Your task to perform on an android device: turn vacation reply on in the gmail app Image 0: 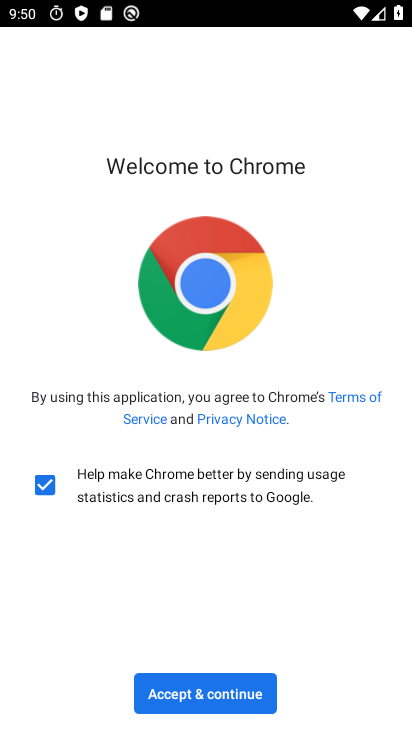
Step 0: press home button
Your task to perform on an android device: turn vacation reply on in the gmail app Image 1: 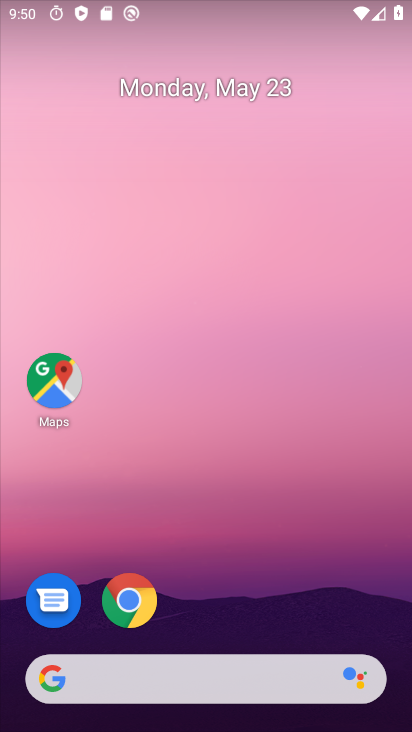
Step 1: drag from (252, 621) to (195, 152)
Your task to perform on an android device: turn vacation reply on in the gmail app Image 2: 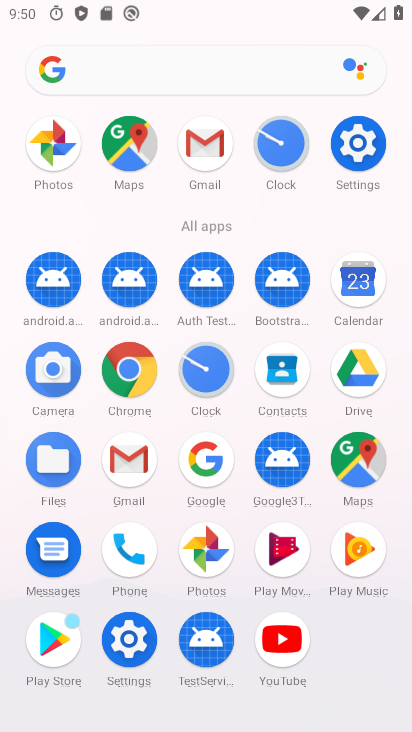
Step 2: click (211, 152)
Your task to perform on an android device: turn vacation reply on in the gmail app Image 3: 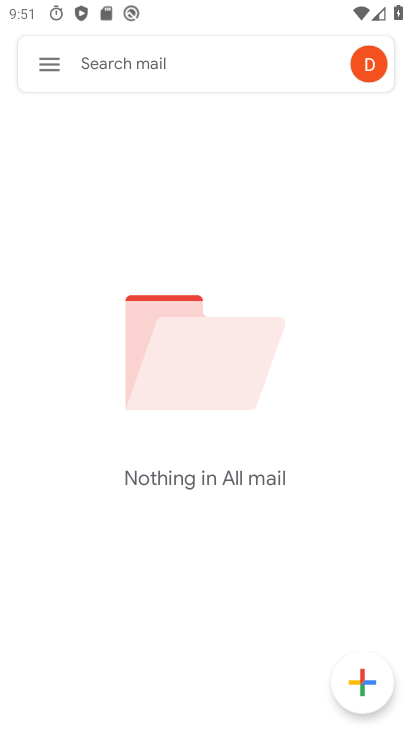
Step 3: click (58, 62)
Your task to perform on an android device: turn vacation reply on in the gmail app Image 4: 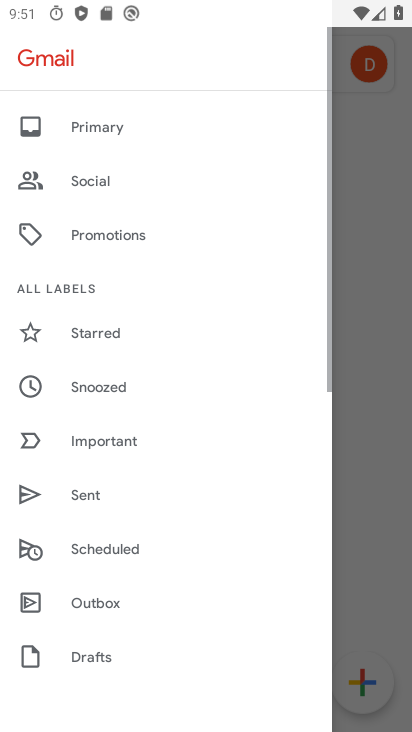
Step 4: click (58, 62)
Your task to perform on an android device: turn vacation reply on in the gmail app Image 5: 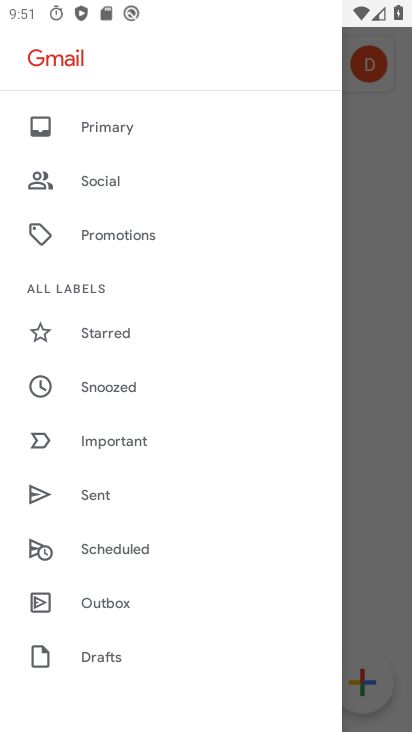
Step 5: drag from (58, 62) to (207, 403)
Your task to perform on an android device: turn vacation reply on in the gmail app Image 6: 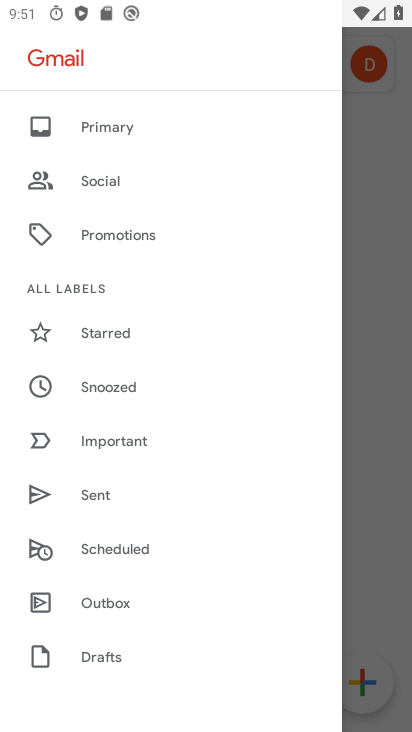
Step 6: drag from (156, 672) to (90, 27)
Your task to perform on an android device: turn vacation reply on in the gmail app Image 7: 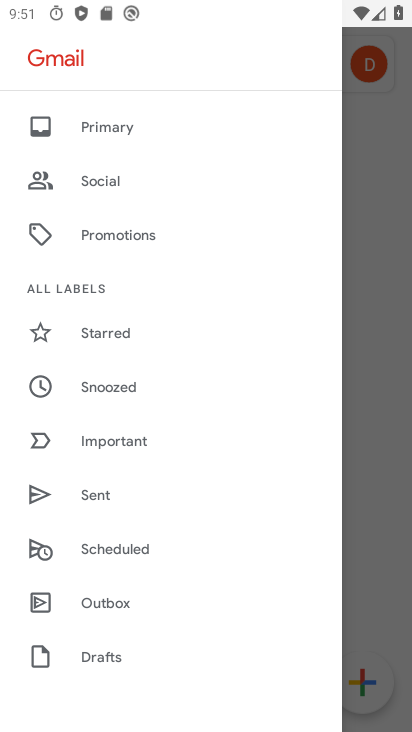
Step 7: drag from (108, 630) to (96, 25)
Your task to perform on an android device: turn vacation reply on in the gmail app Image 8: 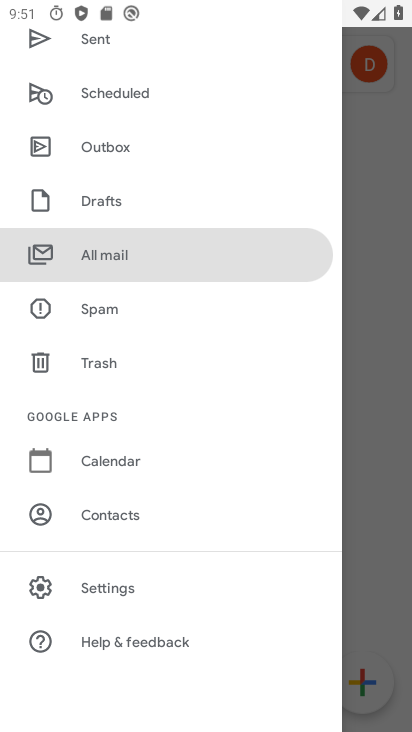
Step 8: click (110, 593)
Your task to perform on an android device: turn vacation reply on in the gmail app Image 9: 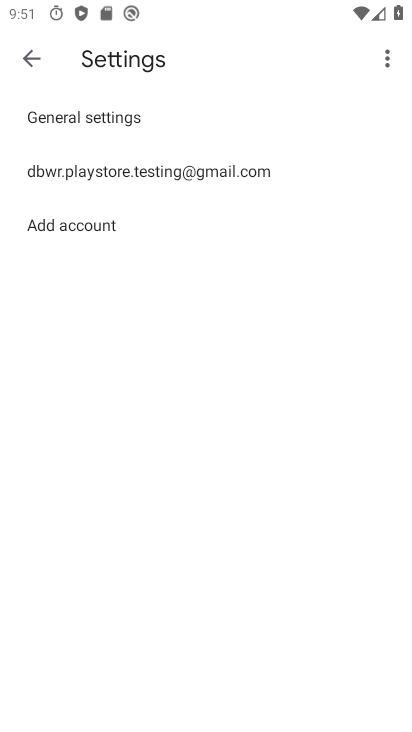
Step 9: click (157, 164)
Your task to perform on an android device: turn vacation reply on in the gmail app Image 10: 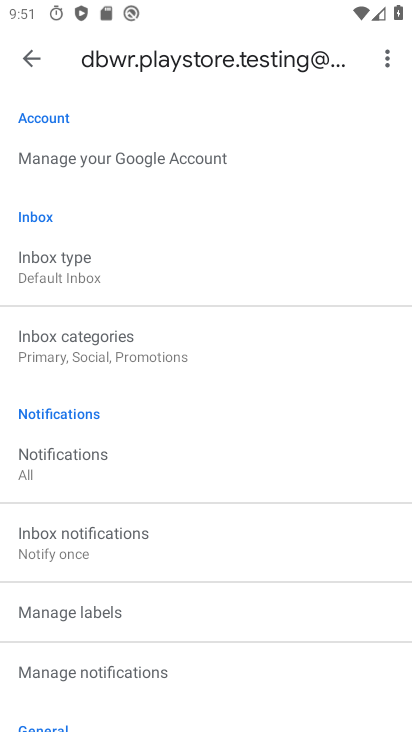
Step 10: drag from (85, 687) to (79, 131)
Your task to perform on an android device: turn vacation reply on in the gmail app Image 11: 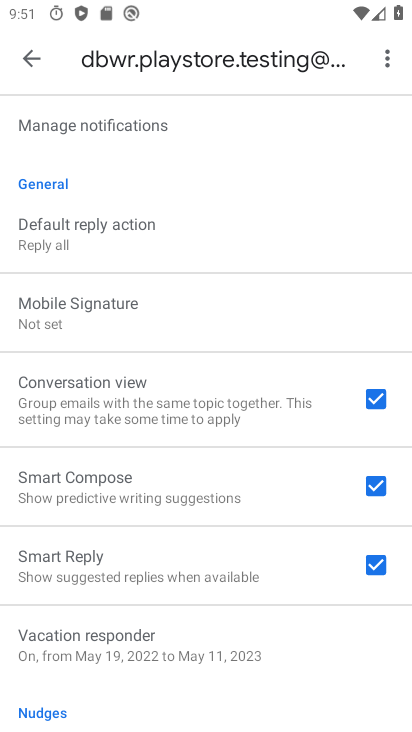
Step 11: click (119, 657)
Your task to perform on an android device: turn vacation reply on in the gmail app Image 12: 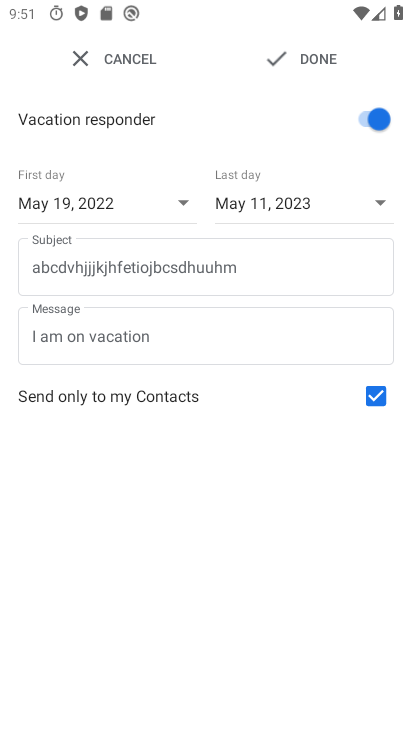
Step 12: click (268, 272)
Your task to perform on an android device: turn vacation reply on in the gmail app Image 13: 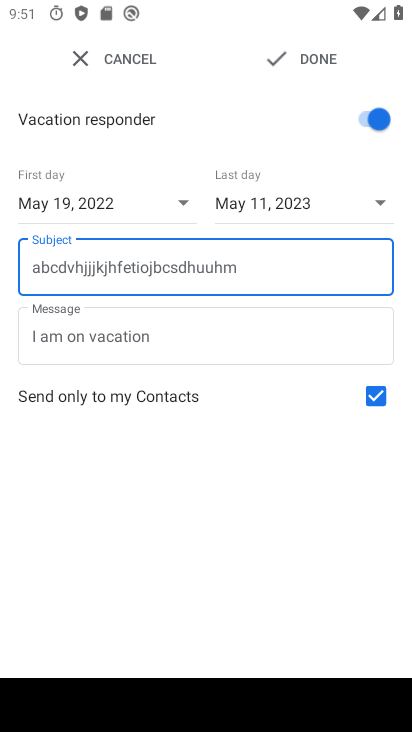
Step 13: type "jhvjh"
Your task to perform on an android device: turn vacation reply on in the gmail app Image 14: 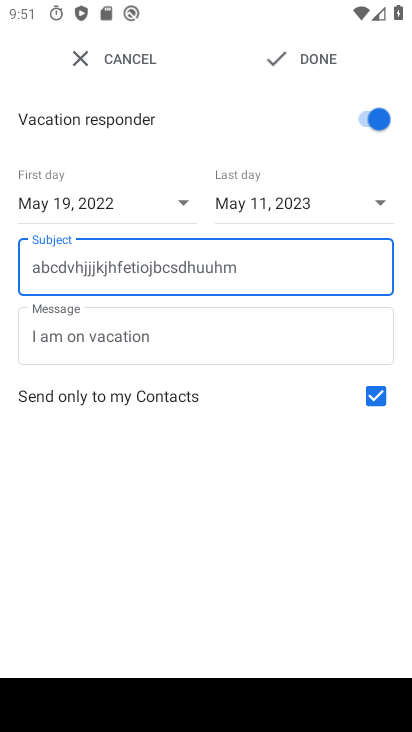
Step 14: click (320, 62)
Your task to perform on an android device: turn vacation reply on in the gmail app Image 15: 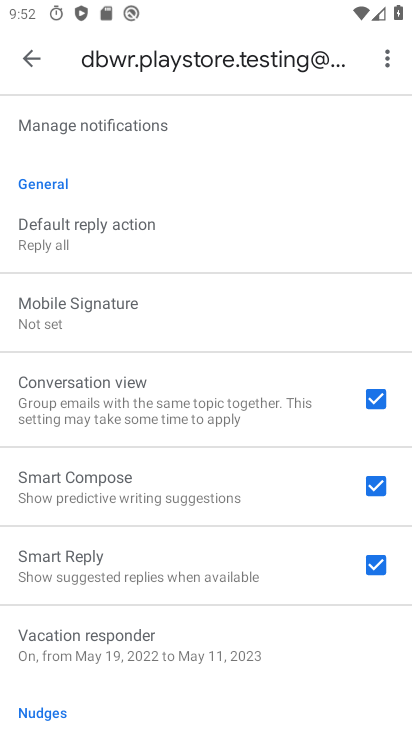
Step 15: task complete